Your task to perform on an android device: turn off location Image 0: 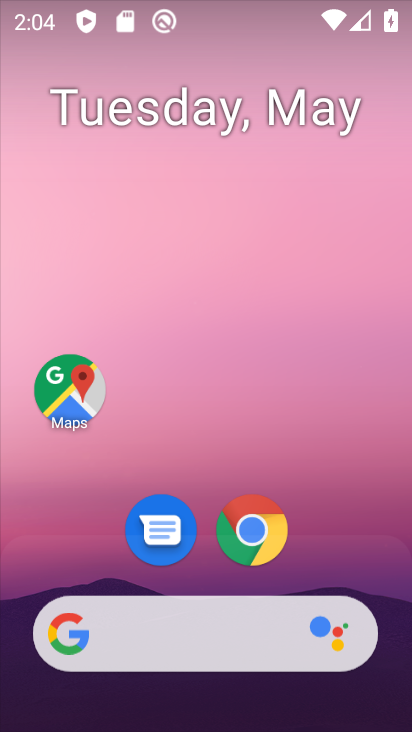
Step 0: drag from (209, 577) to (182, 32)
Your task to perform on an android device: turn off location Image 1: 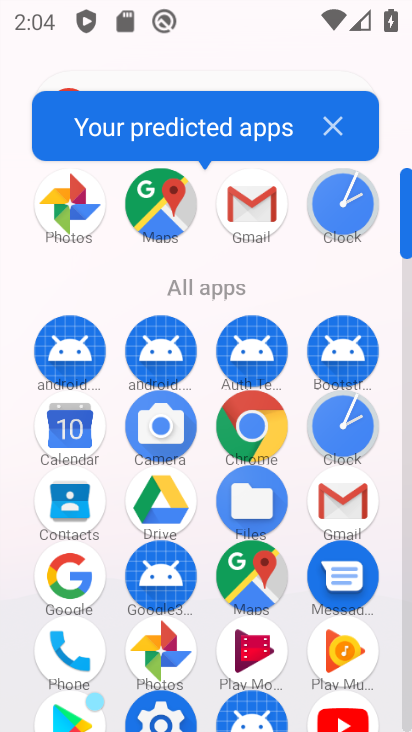
Step 1: click (166, 707)
Your task to perform on an android device: turn off location Image 2: 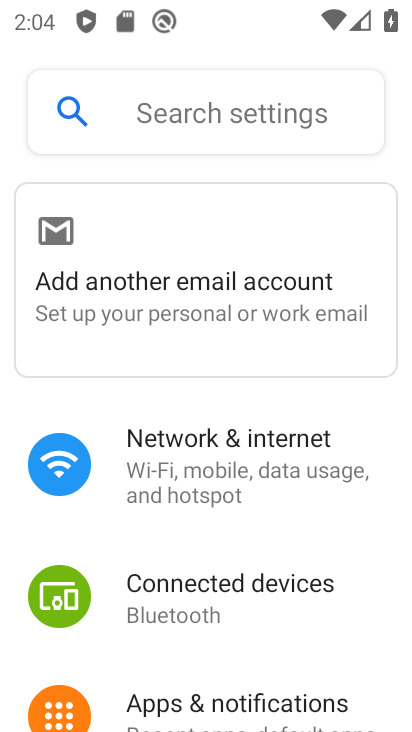
Step 2: drag from (255, 624) to (198, 148)
Your task to perform on an android device: turn off location Image 3: 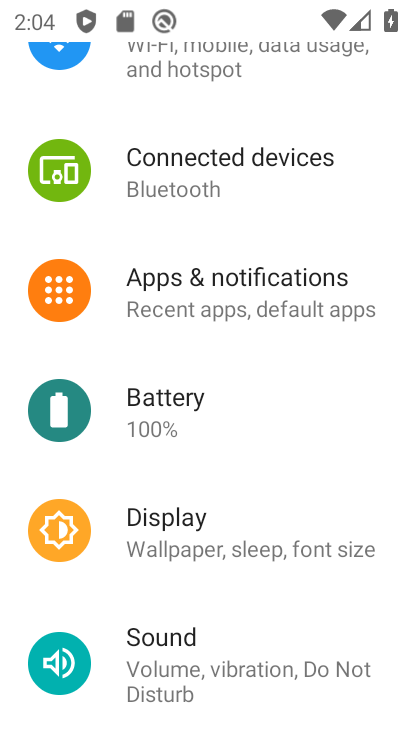
Step 3: drag from (197, 549) to (166, 195)
Your task to perform on an android device: turn off location Image 4: 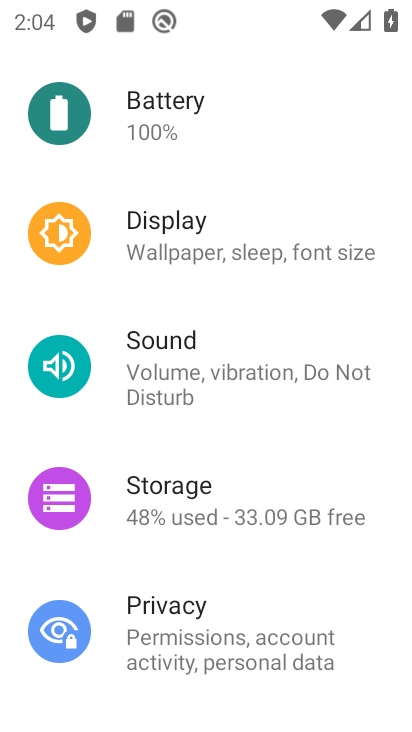
Step 4: drag from (162, 557) to (114, 204)
Your task to perform on an android device: turn off location Image 5: 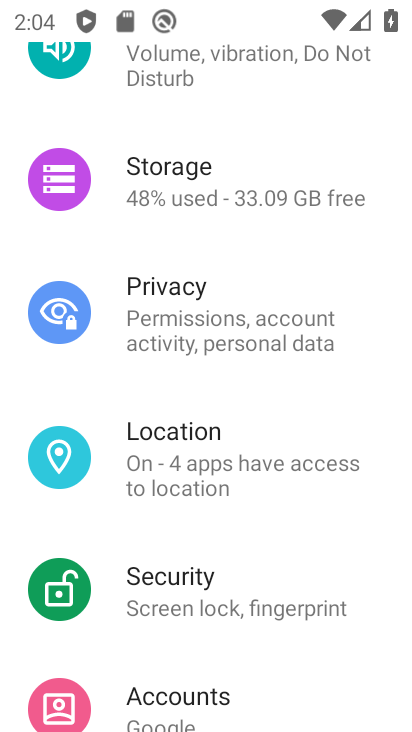
Step 5: click (153, 469)
Your task to perform on an android device: turn off location Image 6: 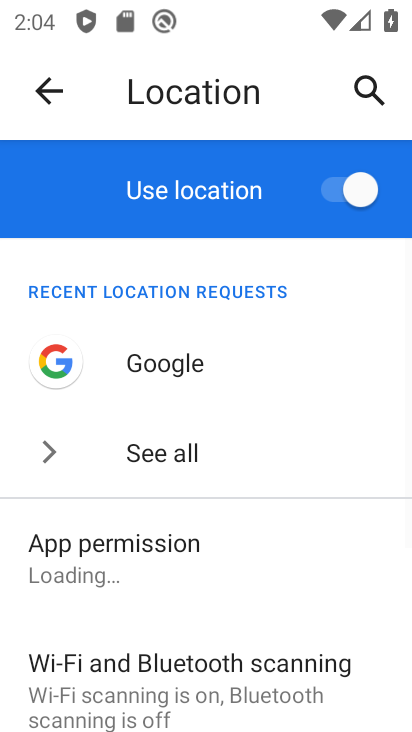
Step 6: drag from (191, 604) to (188, 561)
Your task to perform on an android device: turn off location Image 7: 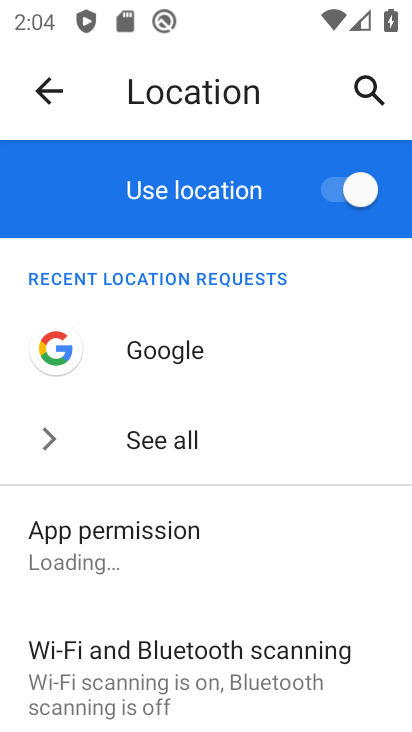
Step 7: click (318, 205)
Your task to perform on an android device: turn off location Image 8: 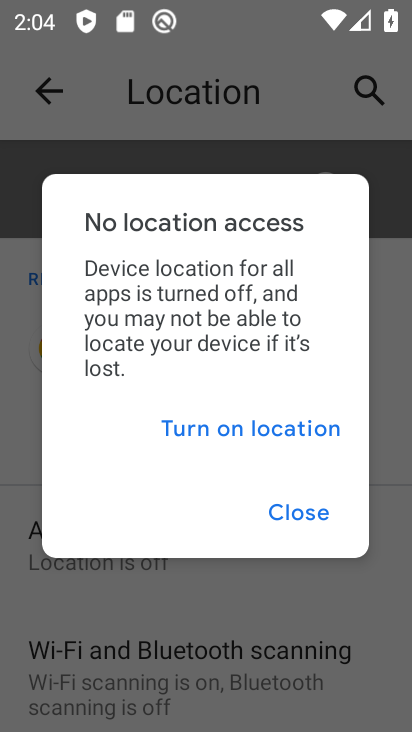
Step 8: click (314, 514)
Your task to perform on an android device: turn off location Image 9: 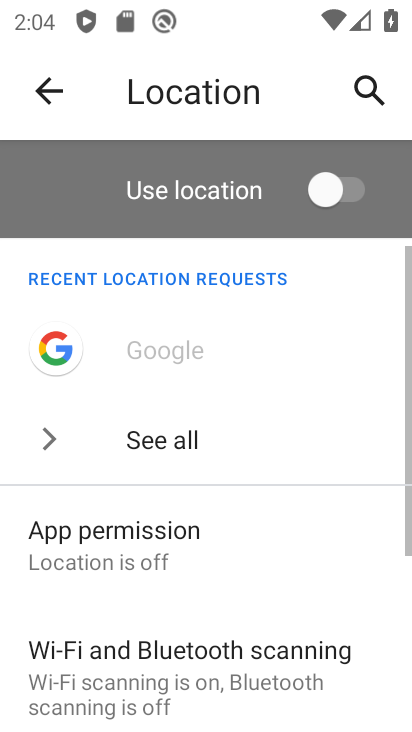
Step 9: task complete